Your task to perform on an android device: Clear the shopping cart on target. Search for "dell alienware" on target, select the first entry, and add it to the cart. Image 0: 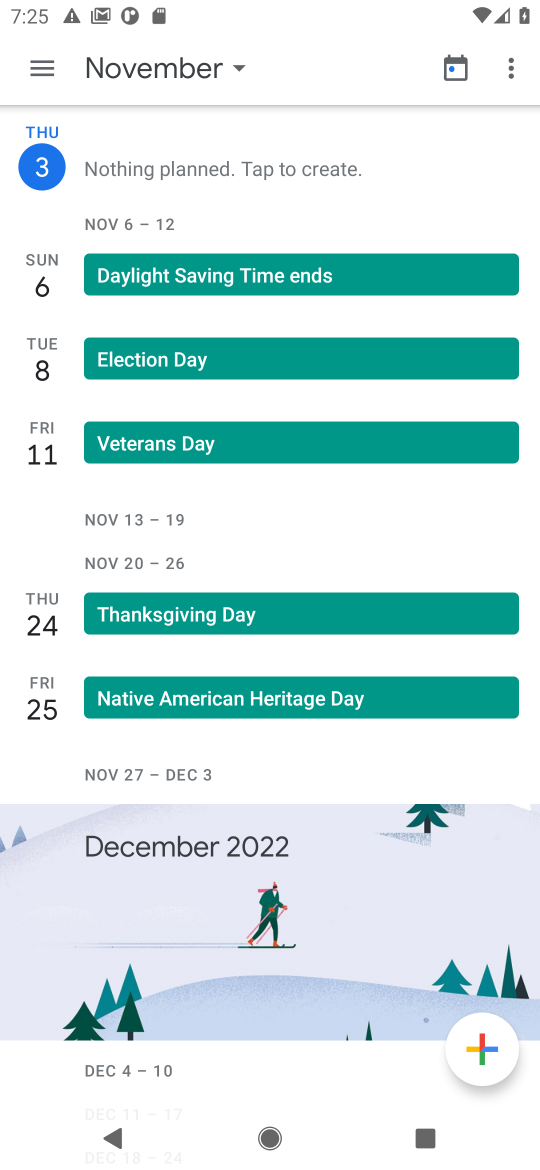
Step 0: press home button
Your task to perform on an android device: Clear the shopping cart on target. Search for "dell alienware" on target, select the first entry, and add it to the cart. Image 1: 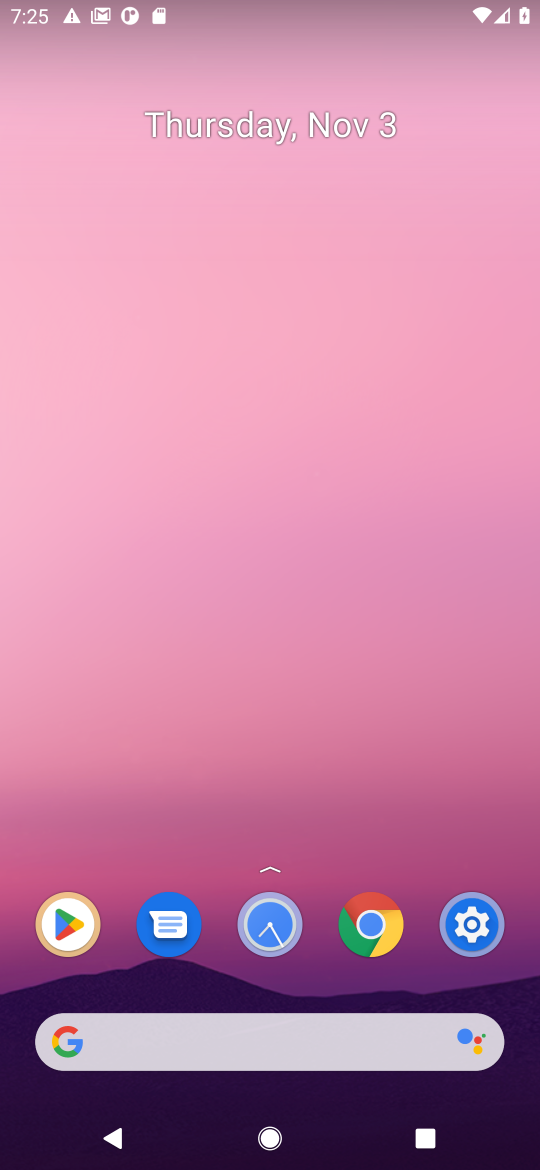
Step 1: click (254, 1035)
Your task to perform on an android device: Clear the shopping cart on target. Search for "dell alienware" on target, select the first entry, and add it to the cart. Image 2: 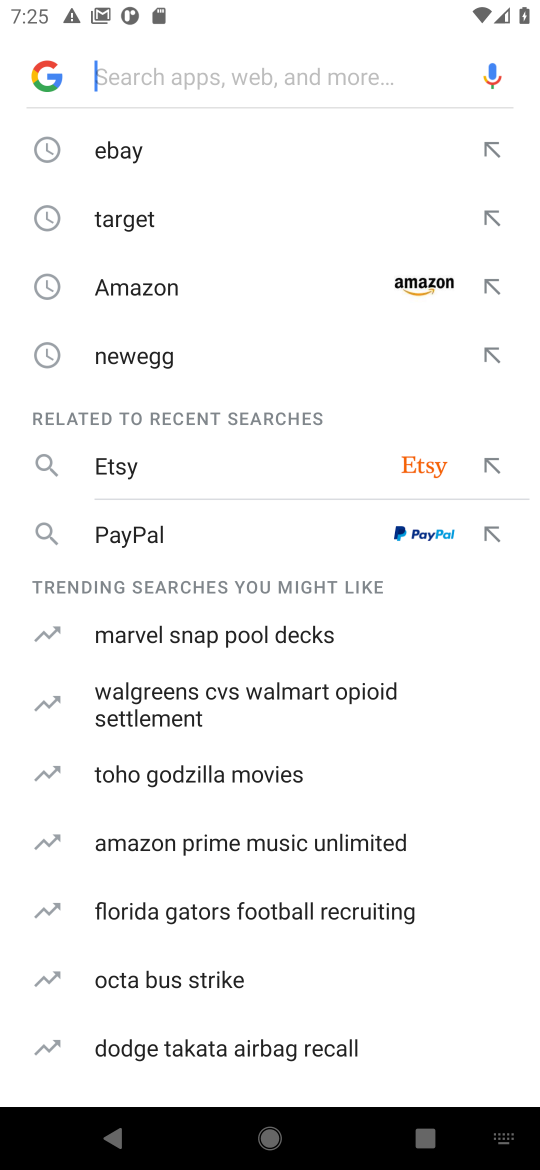
Step 2: click (123, 210)
Your task to perform on an android device: Clear the shopping cart on target. Search for "dell alienware" on target, select the first entry, and add it to the cart. Image 3: 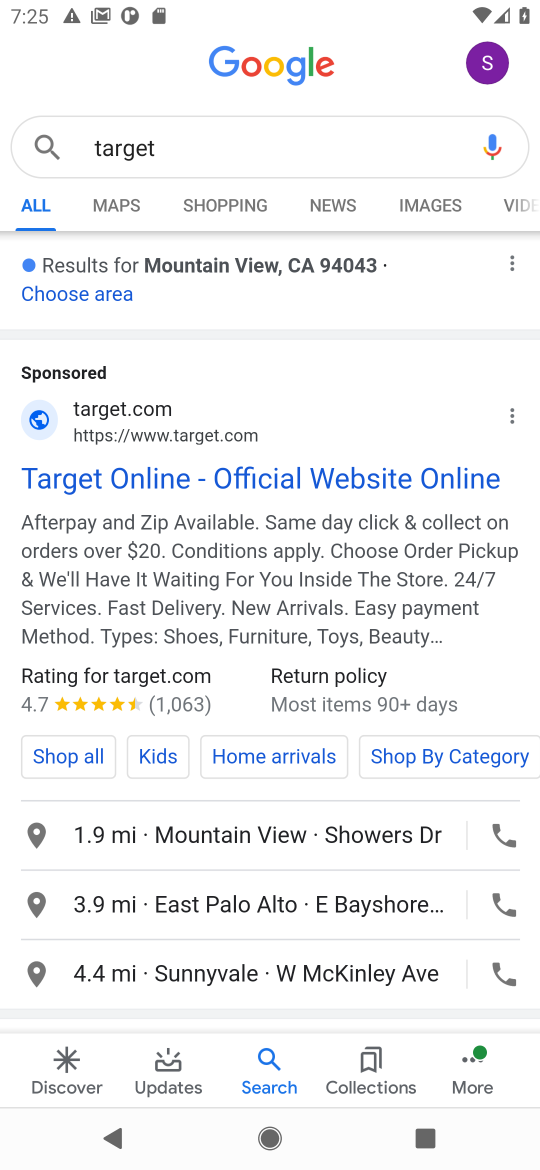
Step 3: click (121, 407)
Your task to perform on an android device: Clear the shopping cart on target. Search for "dell alienware" on target, select the first entry, and add it to the cart. Image 4: 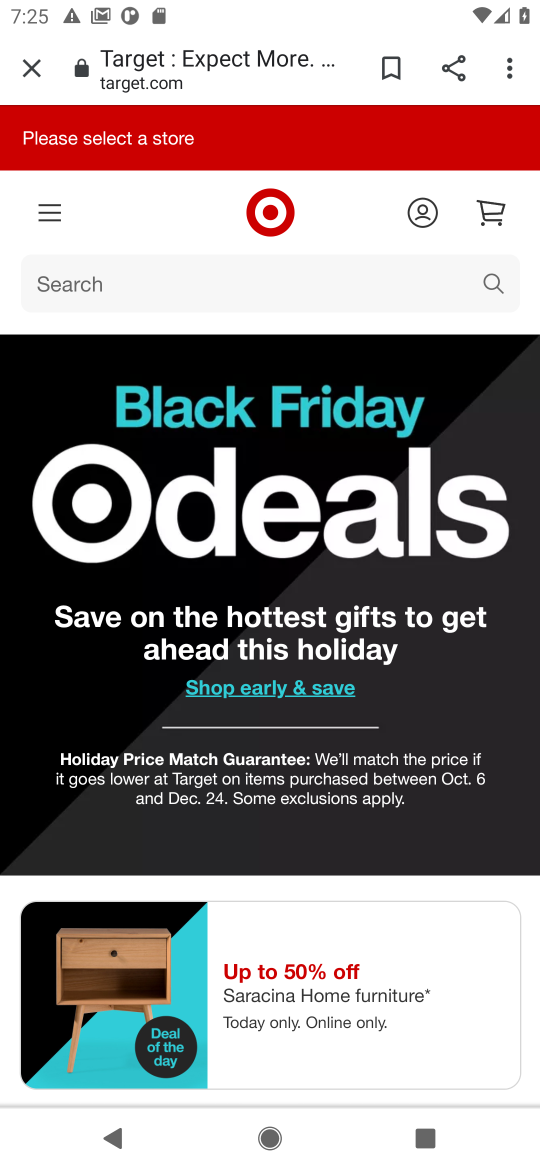
Step 4: click (177, 285)
Your task to perform on an android device: Clear the shopping cart on target. Search for "dell alienware" on target, select the first entry, and add it to the cart. Image 5: 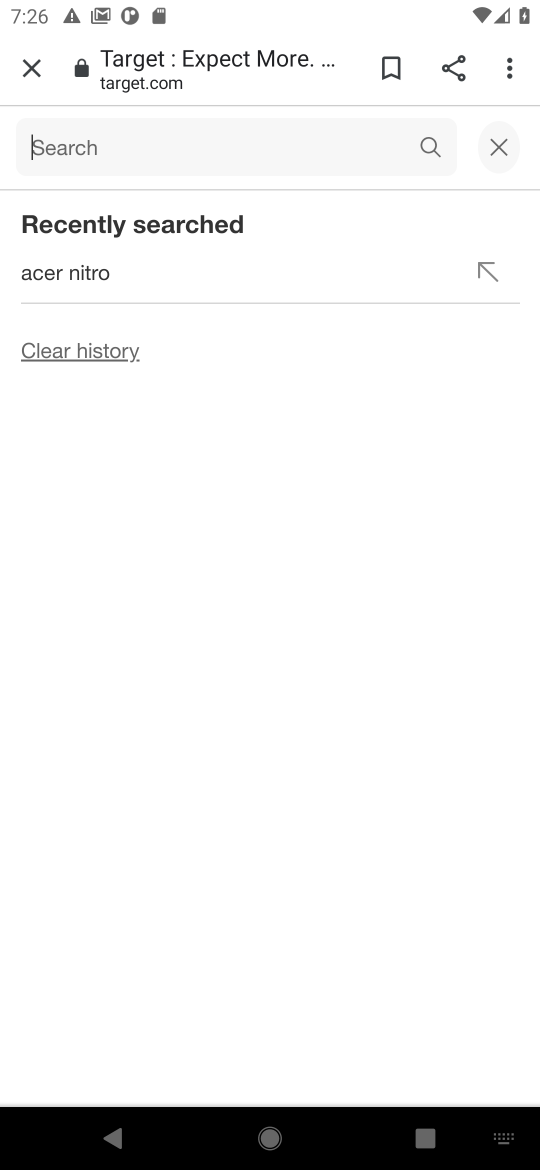
Step 5: type "dell alienware"
Your task to perform on an android device: Clear the shopping cart on target. Search for "dell alienware" on target, select the first entry, and add it to the cart. Image 6: 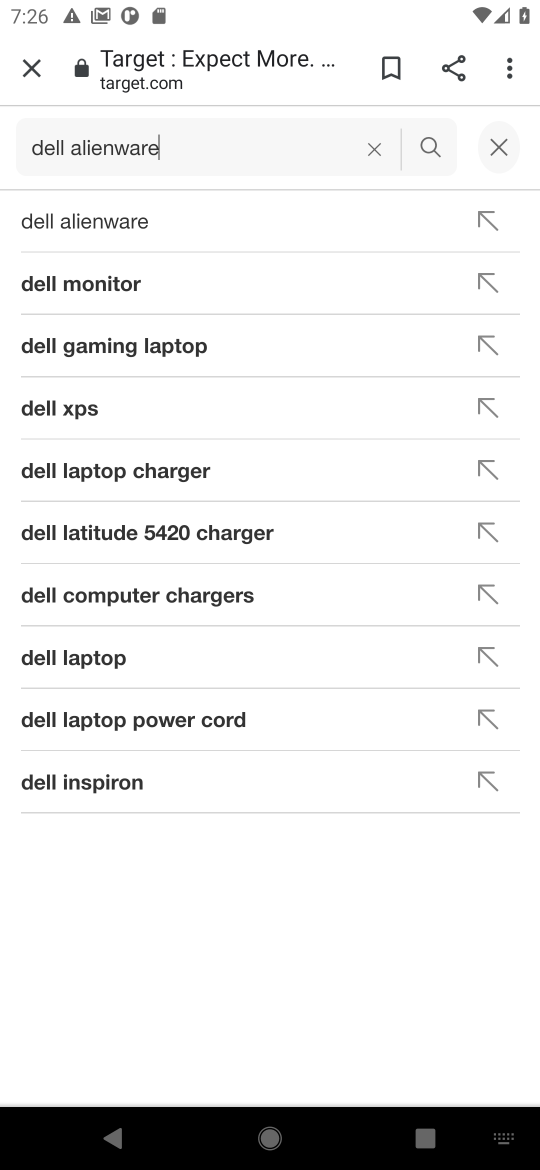
Step 6: click (111, 226)
Your task to perform on an android device: Clear the shopping cart on target. Search for "dell alienware" on target, select the first entry, and add it to the cart. Image 7: 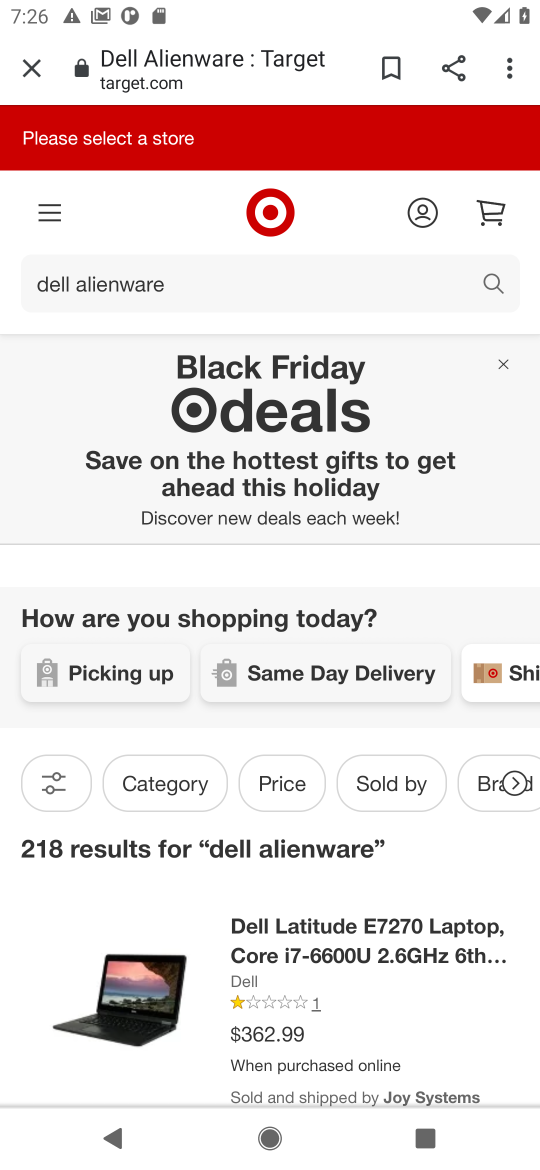
Step 7: drag from (391, 997) to (391, 848)
Your task to perform on an android device: Clear the shopping cart on target. Search for "dell alienware" on target, select the first entry, and add it to the cart. Image 8: 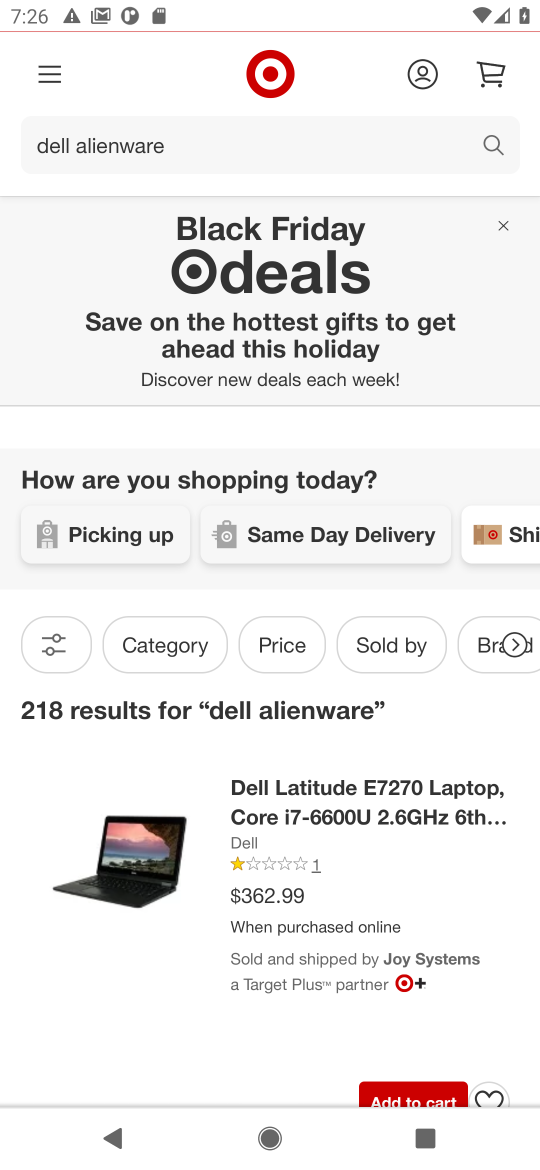
Step 8: drag from (257, 1012) to (213, 793)
Your task to perform on an android device: Clear the shopping cart on target. Search for "dell alienware" on target, select the first entry, and add it to the cart. Image 9: 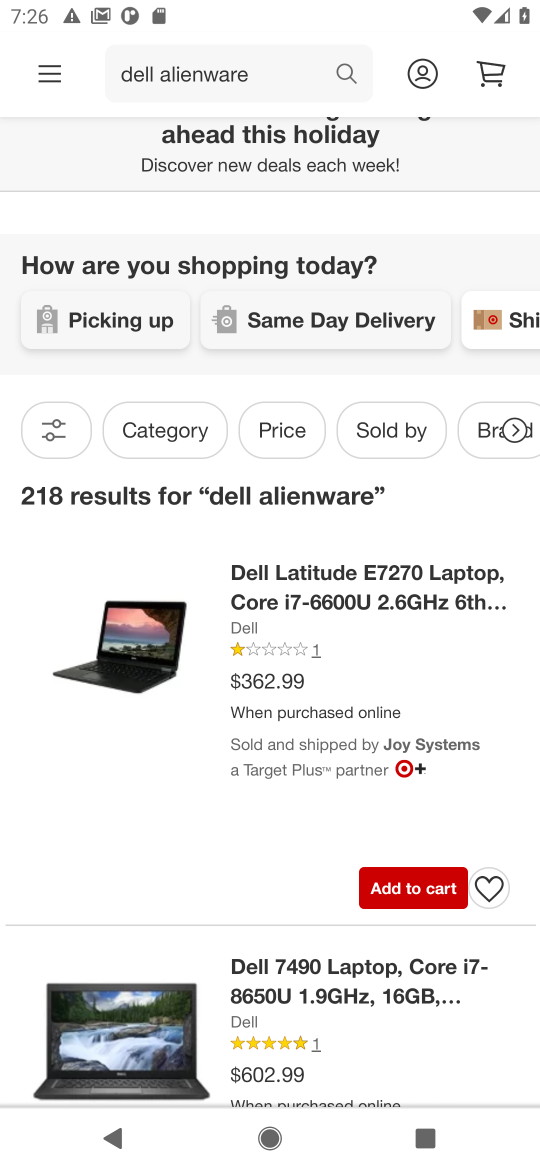
Step 9: click (411, 889)
Your task to perform on an android device: Clear the shopping cart on target. Search for "dell alienware" on target, select the first entry, and add it to the cart. Image 10: 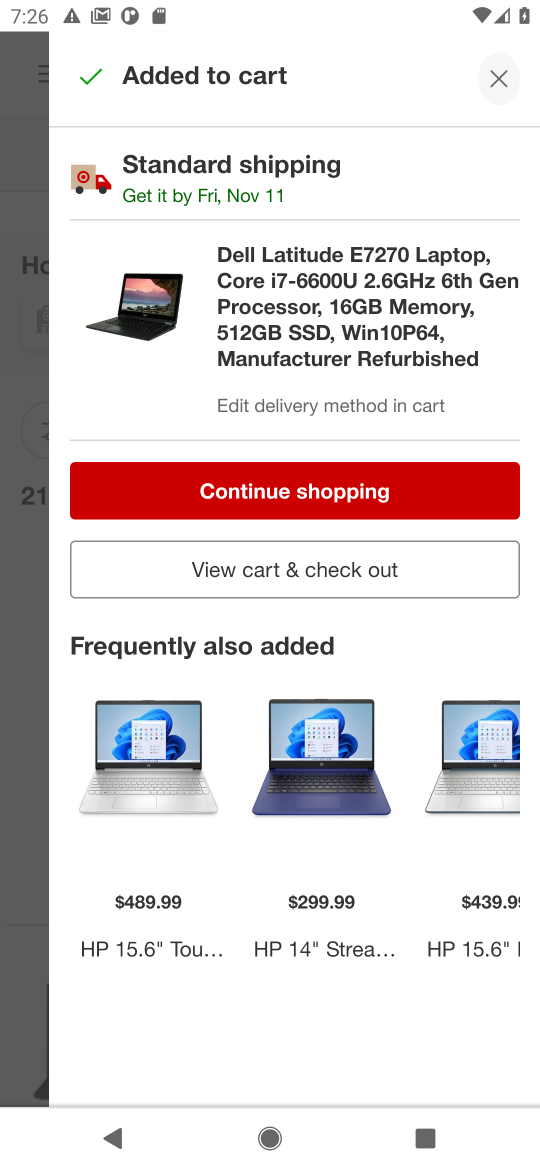
Step 10: task complete